Your task to perform on an android device: change notifications settings Image 0: 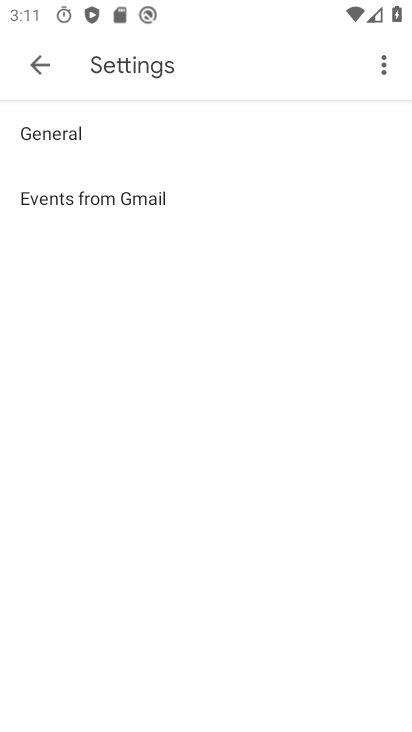
Step 0: press home button
Your task to perform on an android device: change notifications settings Image 1: 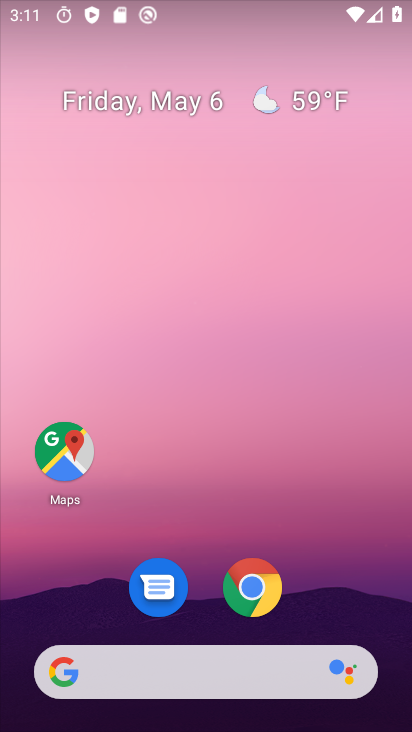
Step 1: drag from (329, 570) to (337, 29)
Your task to perform on an android device: change notifications settings Image 2: 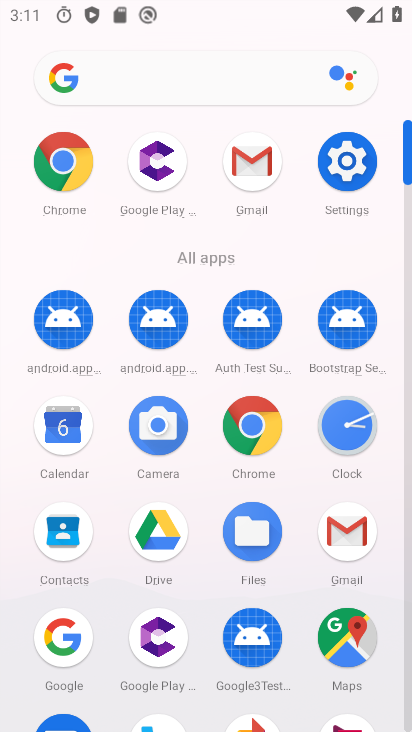
Step 2: click (348, 154)
Your task to perform on an android device: change notifications settings Image 3: 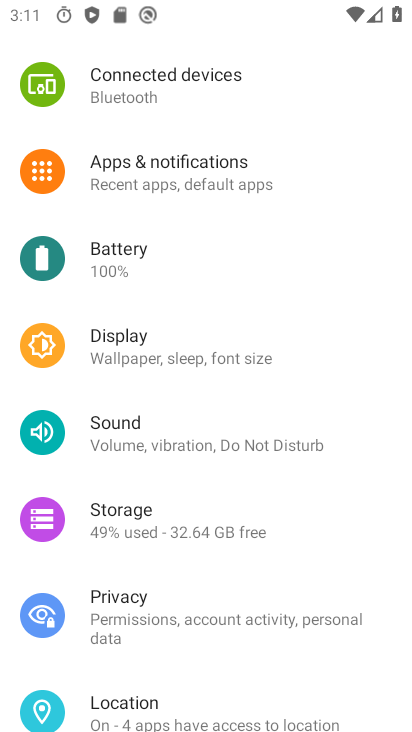
Step 3: drag from (228, 309) to (206, 469)
Your task to perform on an android device: change notifications settings Image 4: 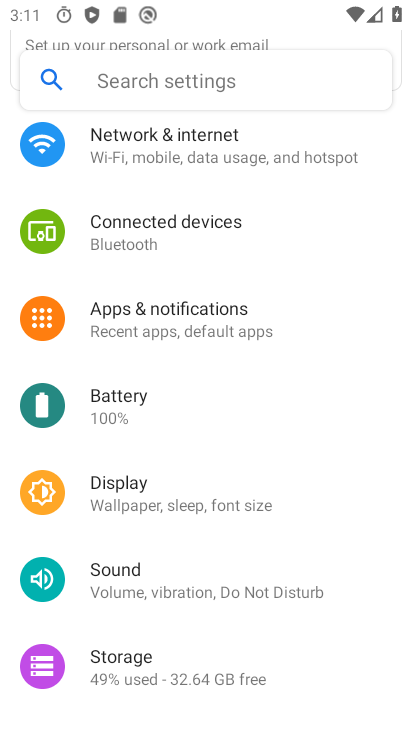
Step 4: click (218, 324)
Your task to perform on an android device: change notifications settings Image 5: 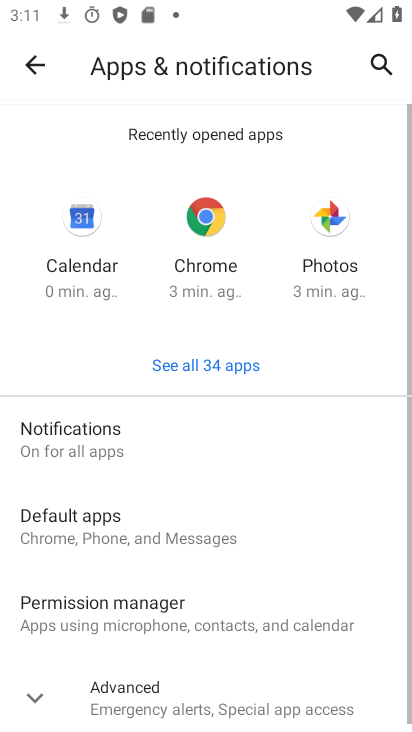
Step 5: click (106, 435)
Your task to perform on an android device: change notifications settings Image 6: 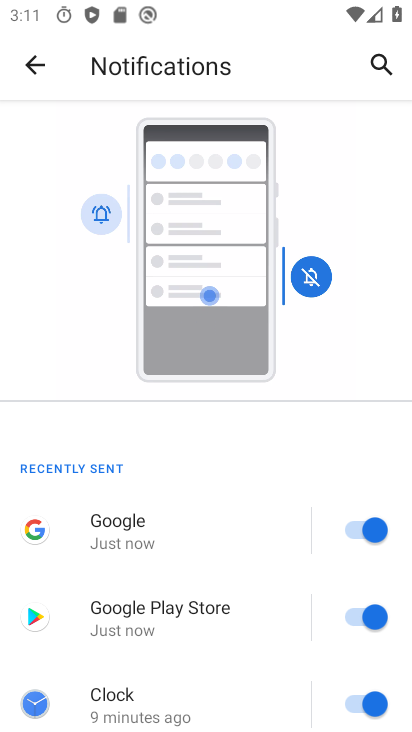
Step 6: drag from (204, 562) to (267, 154)
Your task to perform on an android device: change notifications settings Image 7: 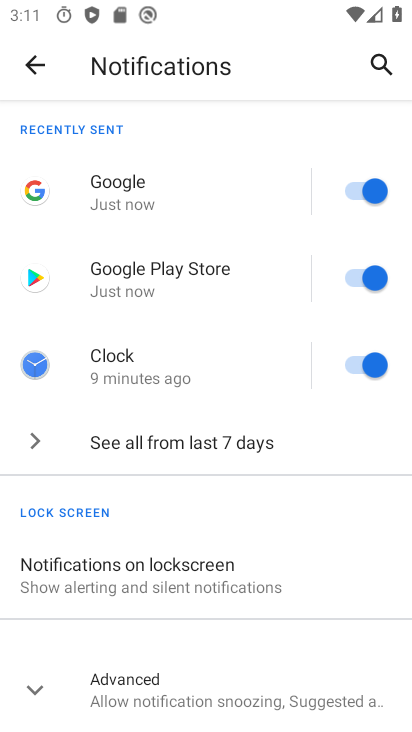
Step 7: click (230, 438)
Your task to perform on an android device: change notifications settings Image 8: 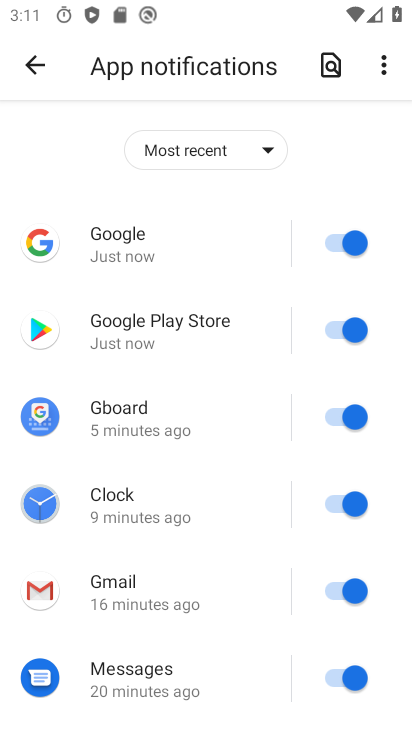
Step 8: click (344, 249)
Your task to perform on an android device: change notifications settings Image 9: 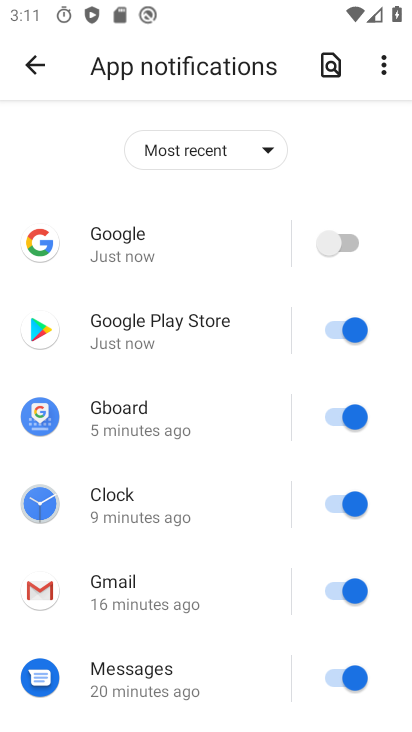
Step 9: click (330, 328)
Your task to perform on an android device: change notifications settings Image 10: 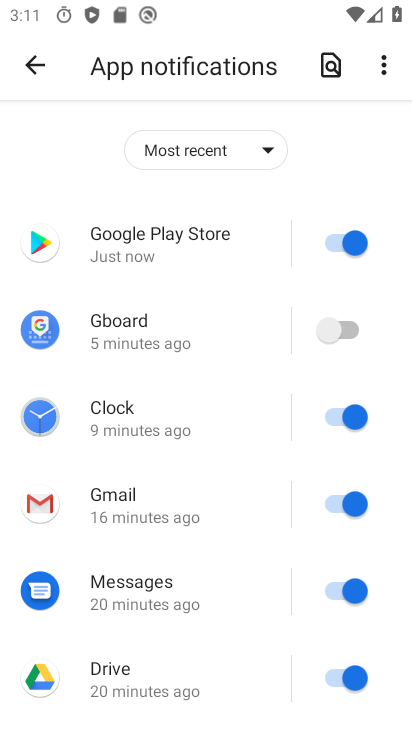
Step 10: click (332, 406)
Your task to perform on an android device: change notifications settings Image 11: 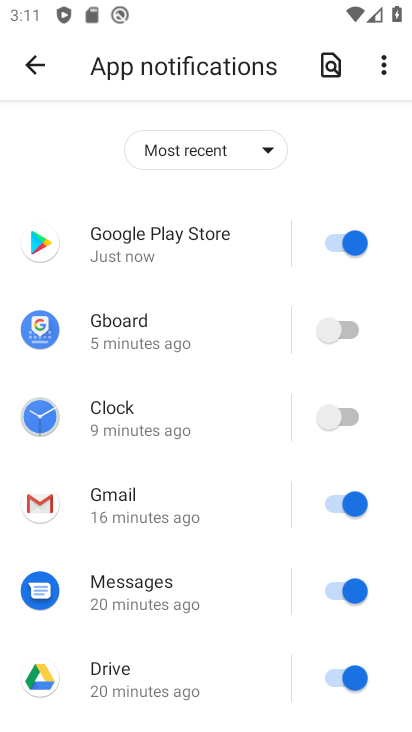
Step 11: click (339, 499)
Your task to perform on an android device: change notifications settings Image 12: 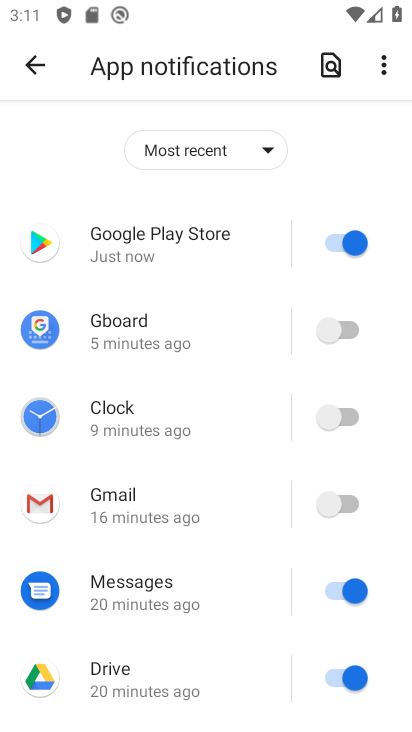
Step 12: click (336, 582)
Your task to perform on an android device: change notifications settings Image 13: 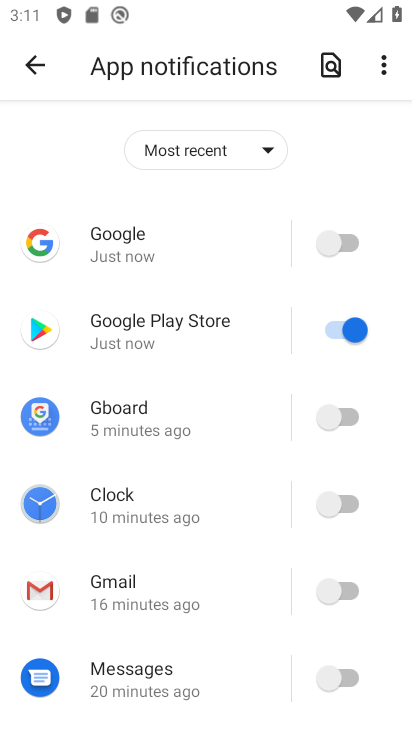
Step 13: click (336, 673)
Your task to perform on an android device: change notifications settings Image 14: 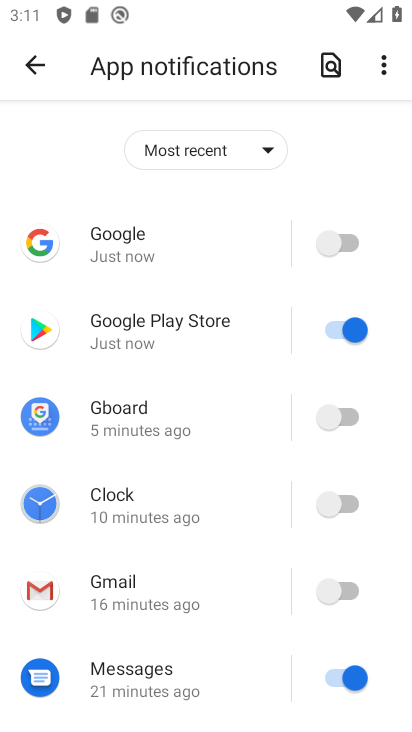
Step 14: click (341, 328)
Your task to perform on an android device: change notifications settings Image 15: 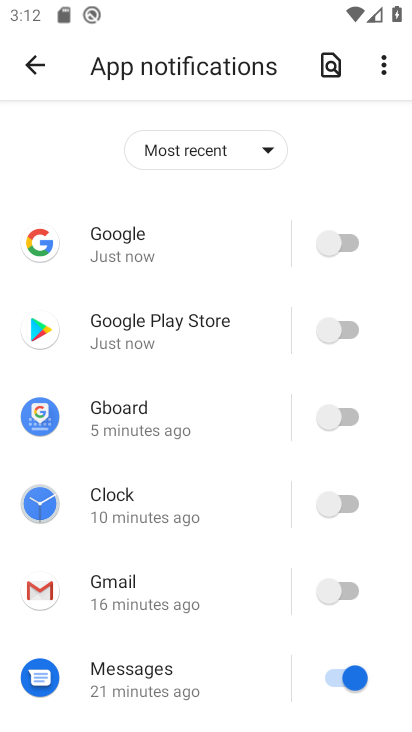
Step 15: click (332, 666)
Your task to perform on an android device: change notifications settings Image 16: 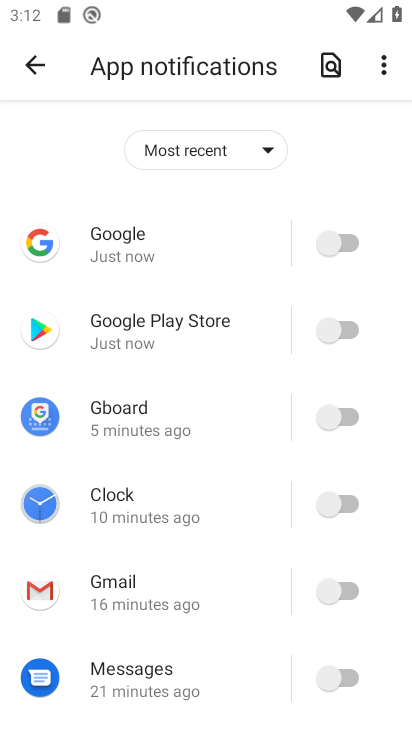
Step 16: drag from (258, 617) to (250, 216)
Your task to perform on an android device: change notifications settings Image 17: 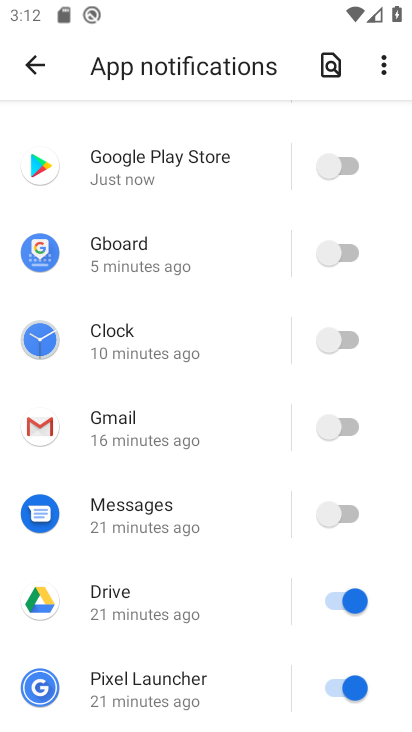
Step 17: click (337, 594)
Your task to perform on an android device: change notifications settings Image 18: 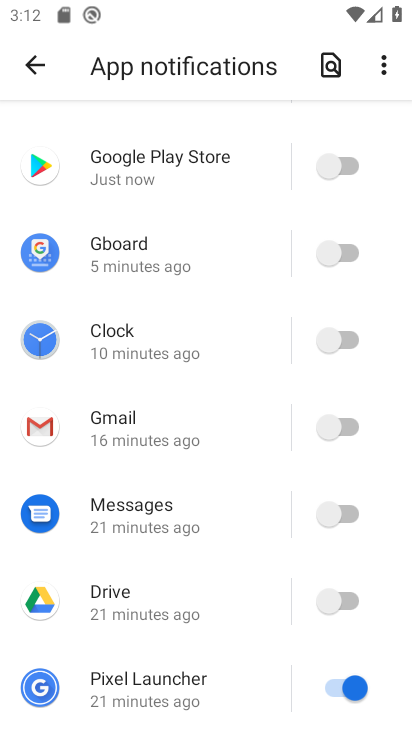
Step 18: click (340, 683)
Your task to perform on an android device: change notifications settings Image 19: 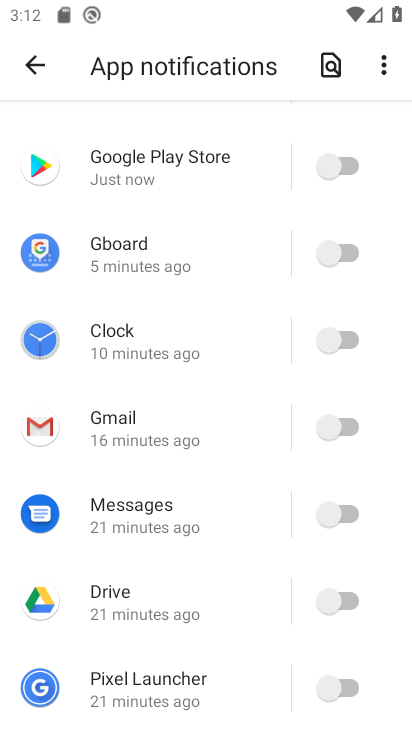
Step 19: task complete